Your task to perform on an android device: Go to CNN.com Image 0: 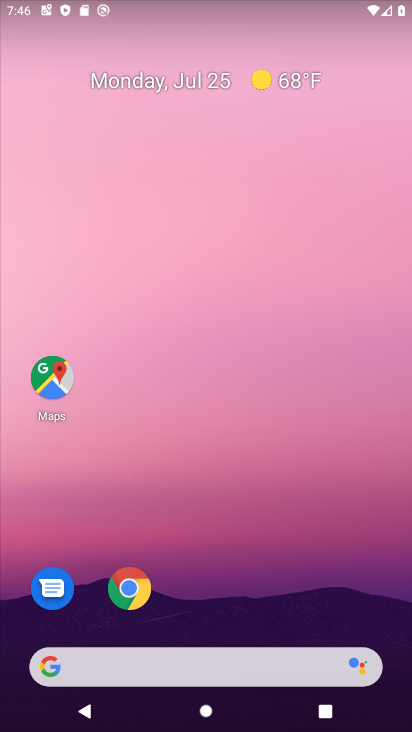
Step 0: drag from (363, 605) to (356, 94)
Your task to perform on an android device: Go to CNN.com Image 1: 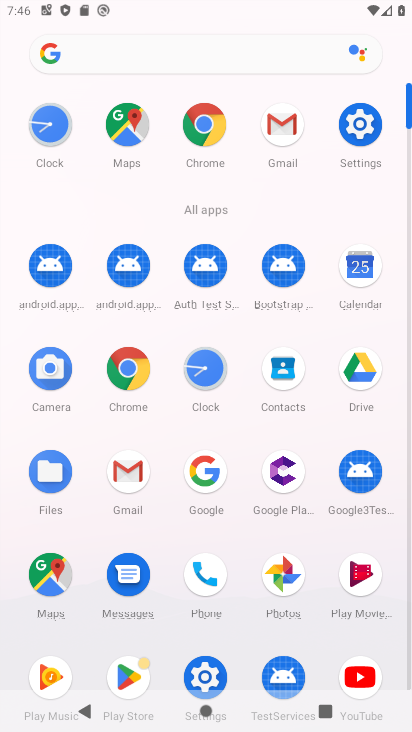
Step 1: click (204, 129)
Your task to perform on an android device: Go to CNN.com Image 2: 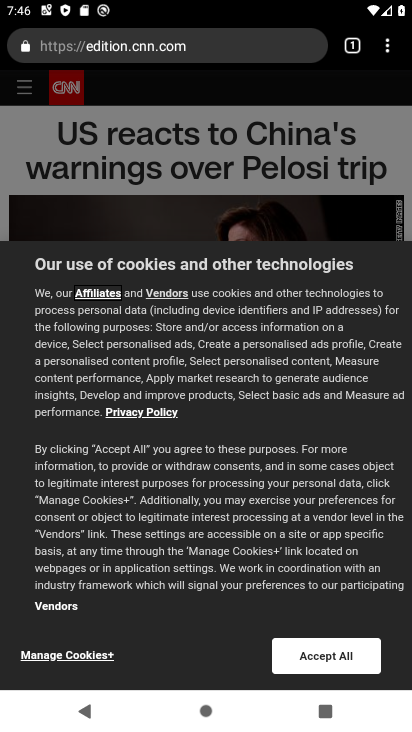
Step 2: click (219, 39)
Your task to perform on an android device: Go to CNN.com Image 3: 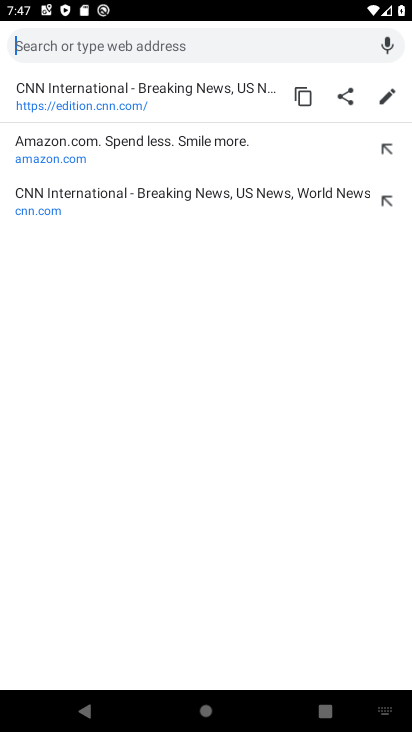
Step 3: type "cnn.com"
Your task to perform on an android device: Go to CNN.com Image 4: 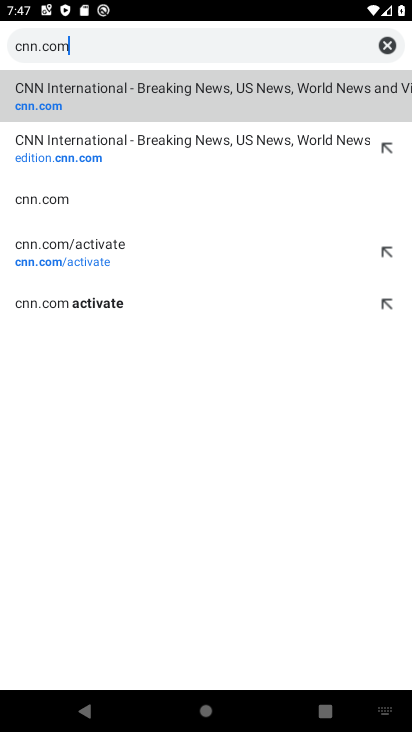
Step 4: click (137, 90)
Your task to perform on an android device: Go to CNN.com Image 5: 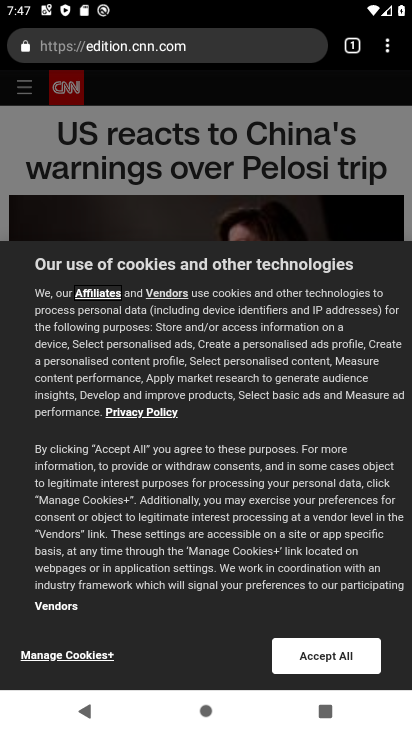
Step 5: task complete